Your task to perform on an android device: change notification settings in the gmail app Image 0: 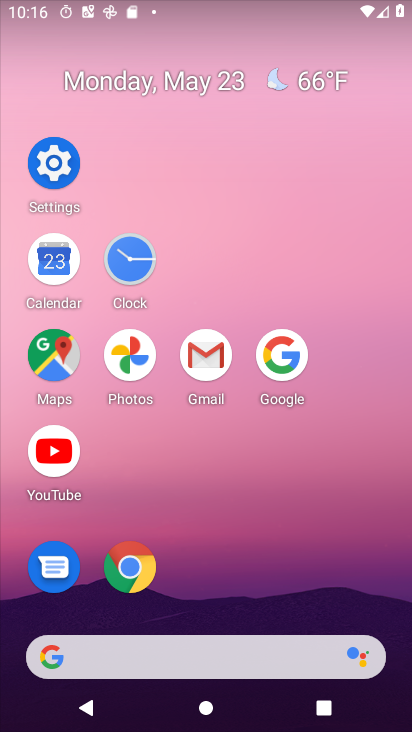
Step 0: click (218, 356)
Your task to perform on an android device: change notification settings in the gmail app Image 1: 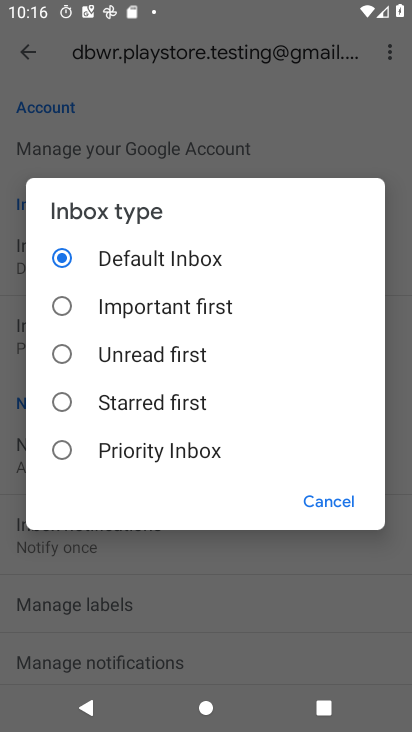
Step 1: press back button
Your task to perform on an android device: change notification settings in the gmail app Image 2: 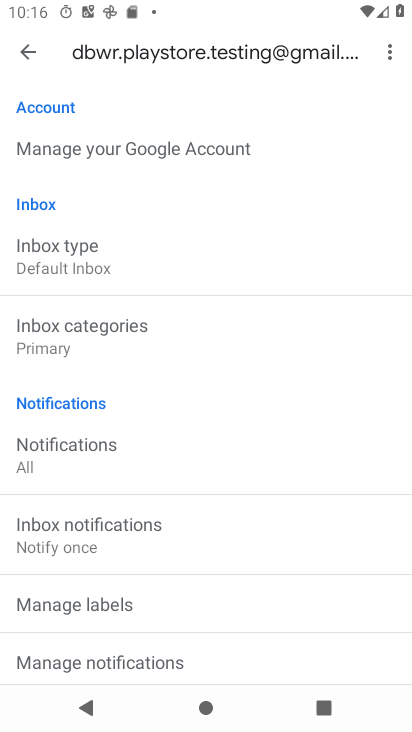
Step 2: click (74, 443)
Your task to perform on an android device: change notification settings in the gmail app Image 3: 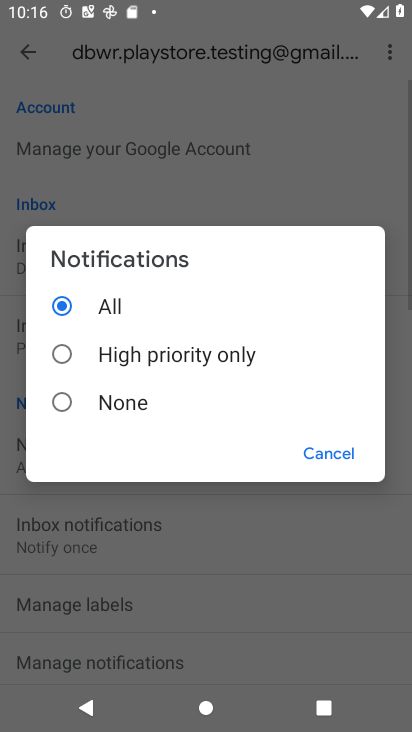
Step 3: click (159, 355)
Your task to perform on an android device: change notification settings in the gmail app Image 4: 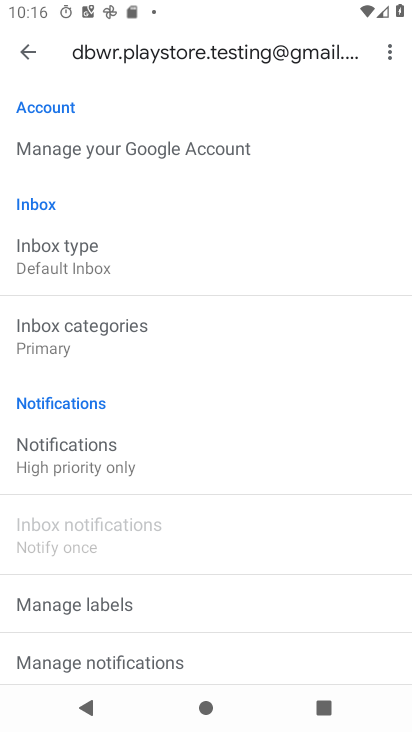
Step 4: task complete